Your task to perform on an android device: delete browsing data in the chrome app Image 0: 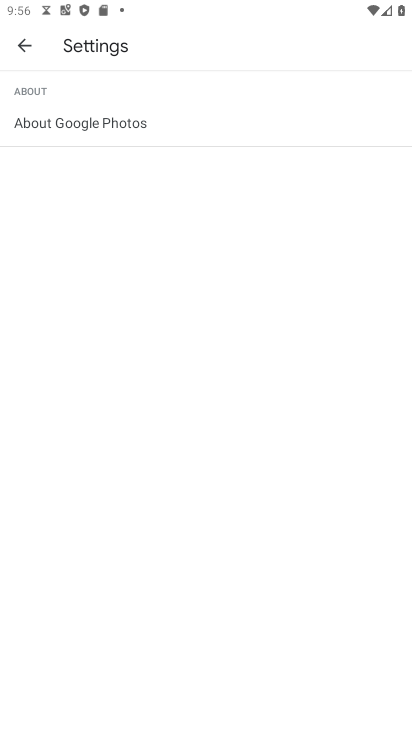
Step 0: press home button
Your task to perform on an android device: delete browsing data in the chrome app Image 1: 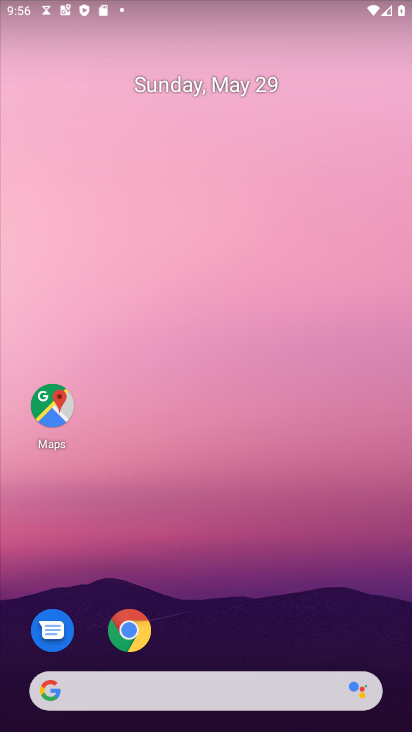
Step 1: click (134, 623)
Your task to perform on an android device: delete browsing data in the chrome app Image 2: 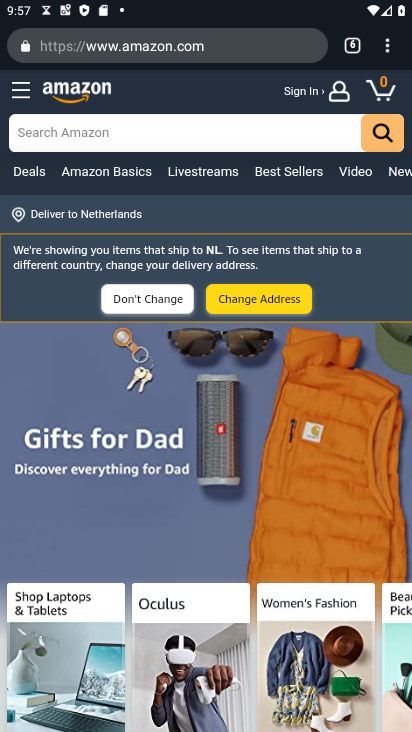
Step 2: click (395, 52)
Your task to perform on an android device: delete browsing data in the chrome app Image 3: 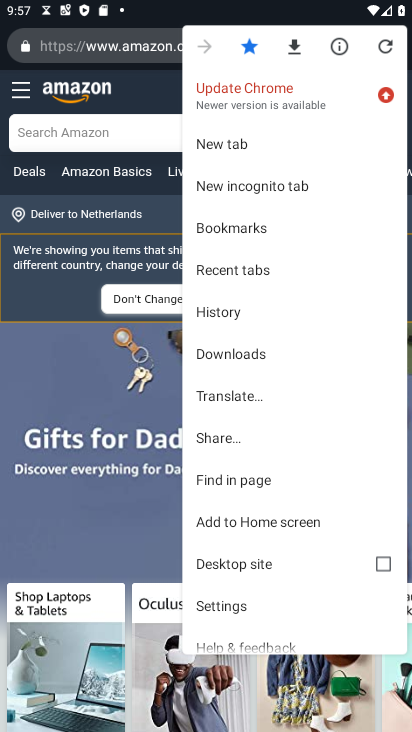
Step 3: click (234, 603)
Your task to perform on an android device: delete browsing data in the chrome app Image 4: 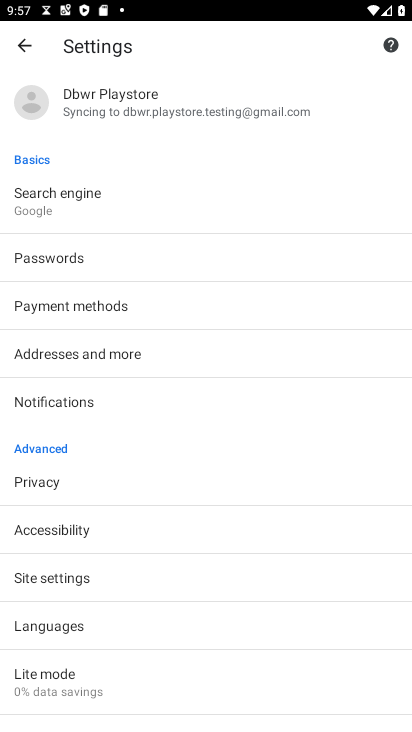
Step 4: click (16, 40)
Your task to perform on an android device: delete browsing data in the chrome app Image 5: 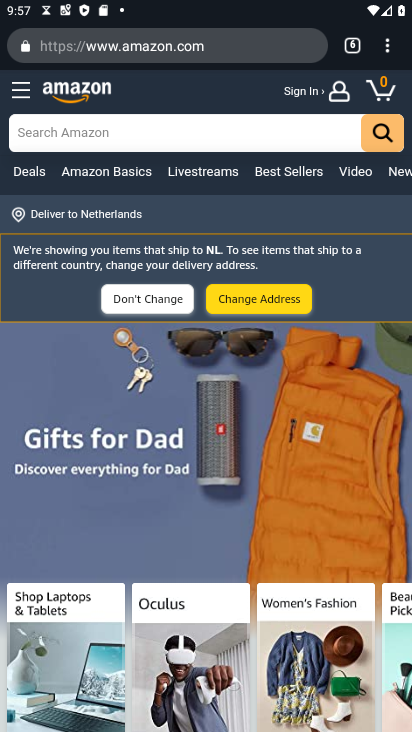
Step 5: click (389, 46)
Your task to perform on an android device: delete browsing data in the chrome app Image 6: 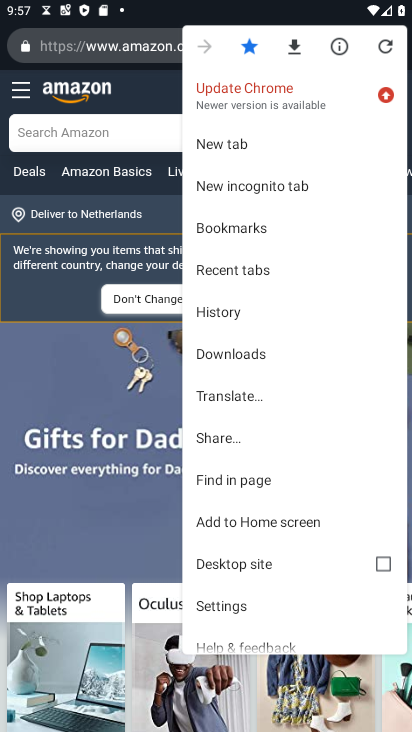
Step 6: click (232, 316)
Your task to perform on an android device: delete browsing data in the chrome app Image 7: 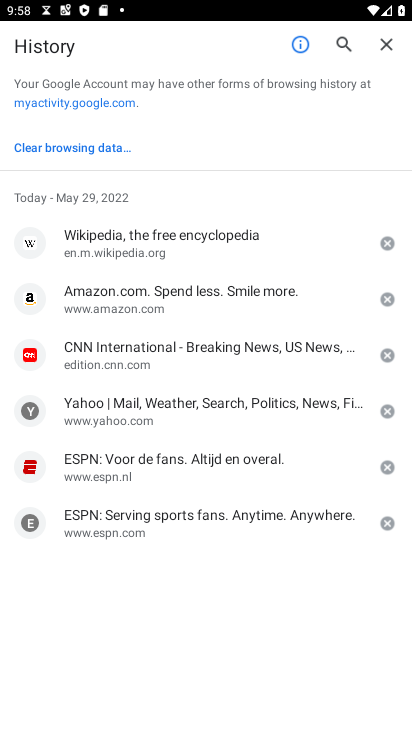
Step 7: click (92, 149)
Your task to perform on an android device: delete browsing data in the chrome app Image 8: 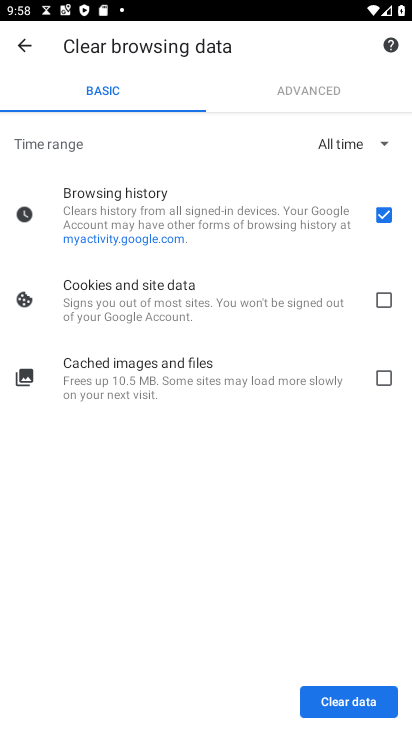
Step 8: click (327, 705)
Your task to perform on an android device: delete browsing data in the chrome app Image 9: 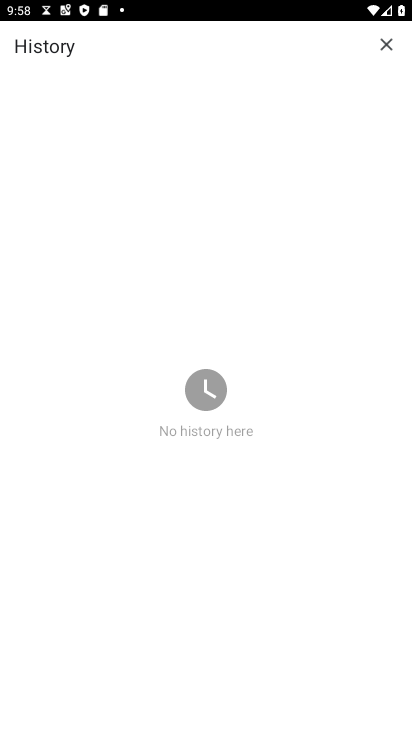
Step 9: task complete